Your task to perform on an android device: add a contact in the contacts app Image 0: 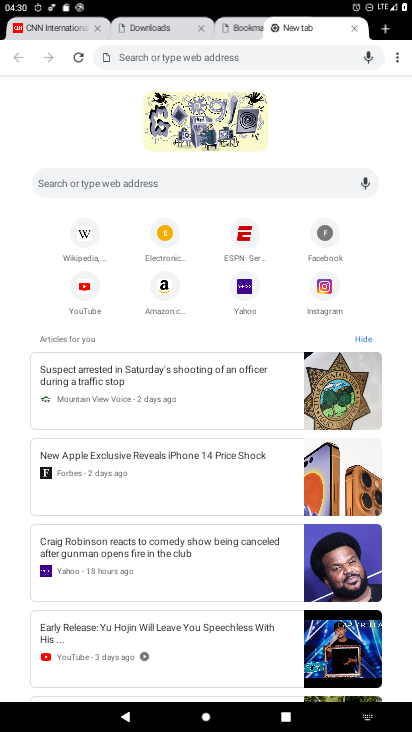
Step 0: press home button
Your task to perform on an android device: add a contact in the contacts app Image 1: 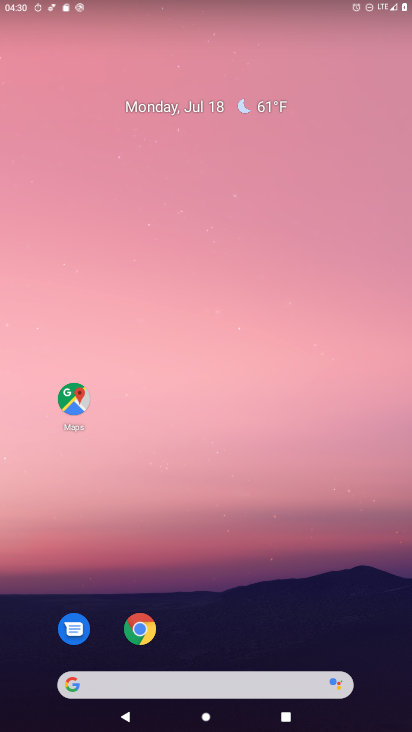
Step 1: drag from (249, 676) to (241, 121)
Your task to perform on an android device: add a contact in the contacts app Image 2: 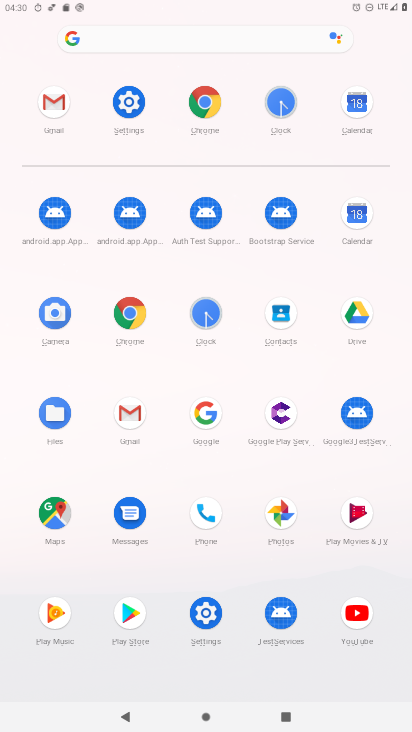
Step 2: click (281, 319)
Your task to perform on an android device: add a contact in the contacts app Image 3: 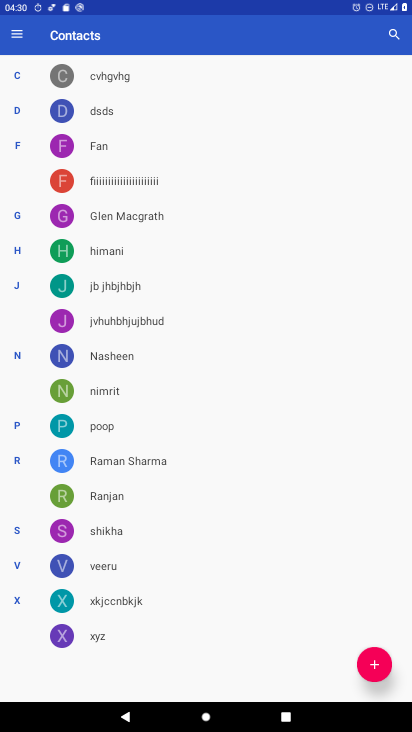
Step 3: click (368, 659)
Your task to perform on an android device: add a contact in the contacts app Image 4: 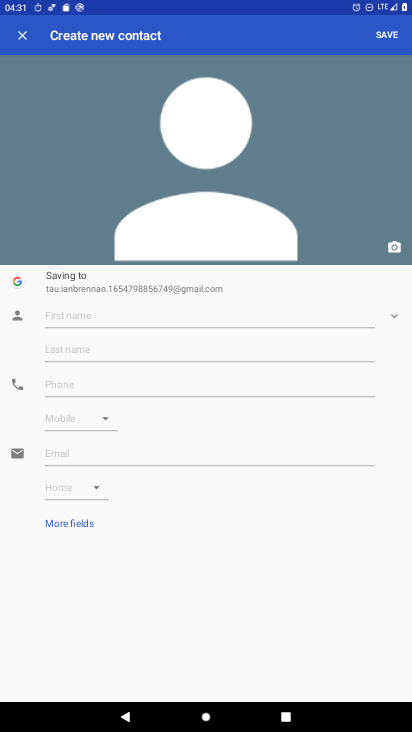
Step 4: click (208, 313)
Your task to perform on an android device: add a contact in the contacts app Image 5: 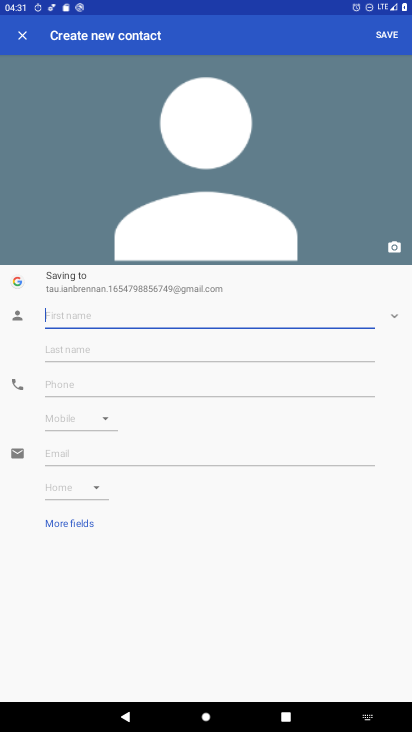
Step 5: type "Sheshmani"
Your task to perform on an android device: add a contact in the contacts app Image 6: 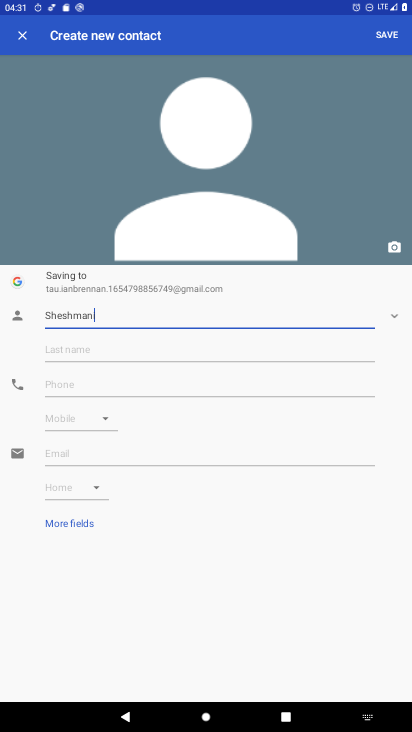
Step 6: click (73, 364)
Your task to perform on an android device: add a contact in the contacts app Image 7: 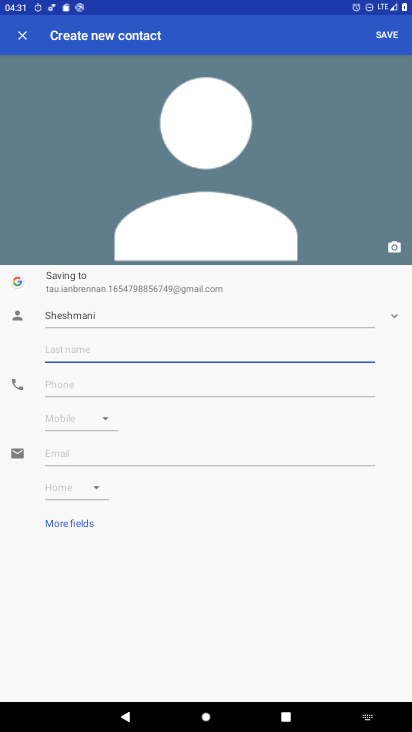
Step 7: type "Salon"
Your task to perform on an android device: add a contact in the contacts app Image 8: 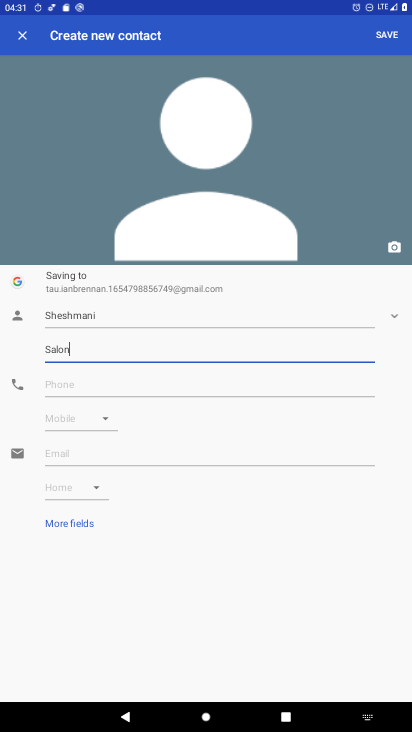
Step 8: click (270, 396)
Your task to perform on an android device: add a contact in the contacts app Image 9: 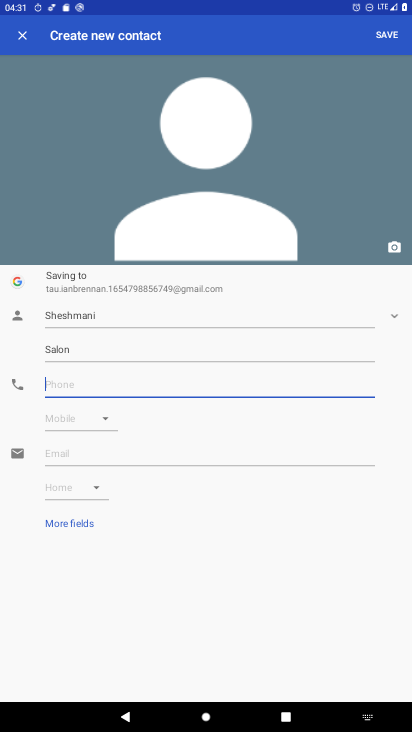
Step 9: type "0987654321"
Your task to perform on an android device: add a contact in the contacts app Image 10: 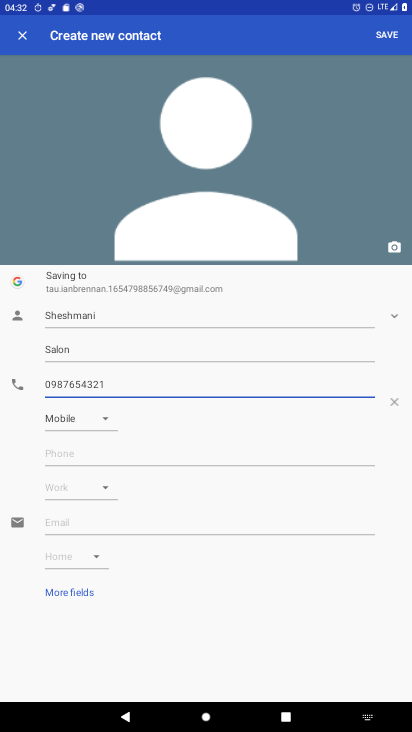
Step 10: click (389, 37)
Your task to perform on an android device: add a contact in the contacts app Image 11: 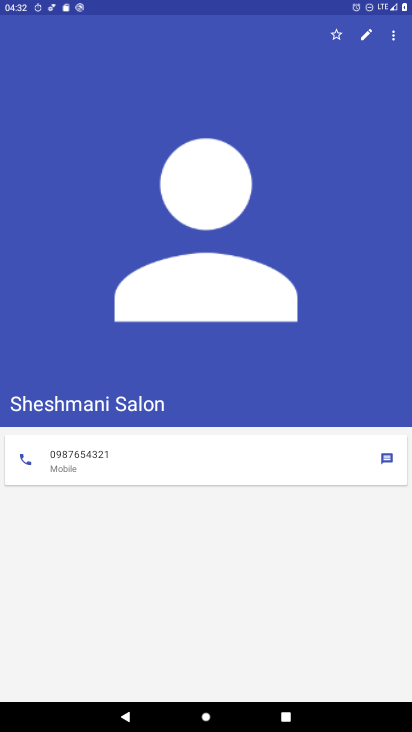
Step 11: task complete